Your task to perform on an android device: move an email to a new category in the gmail app Image 0: 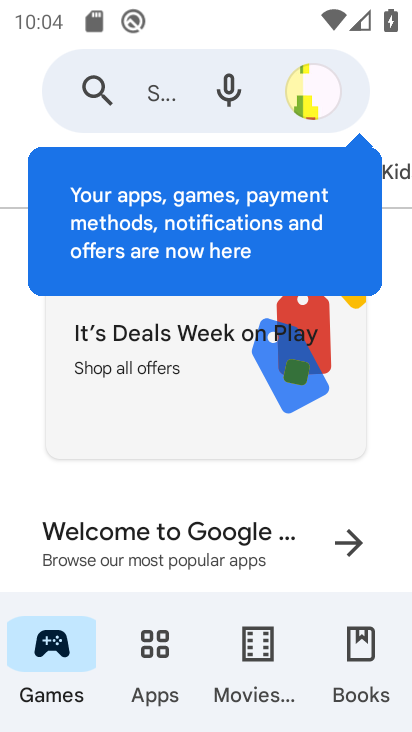
Step 0: press home button
Your task to perform on an android device: move an email to a new category in the gmail app Image 1: 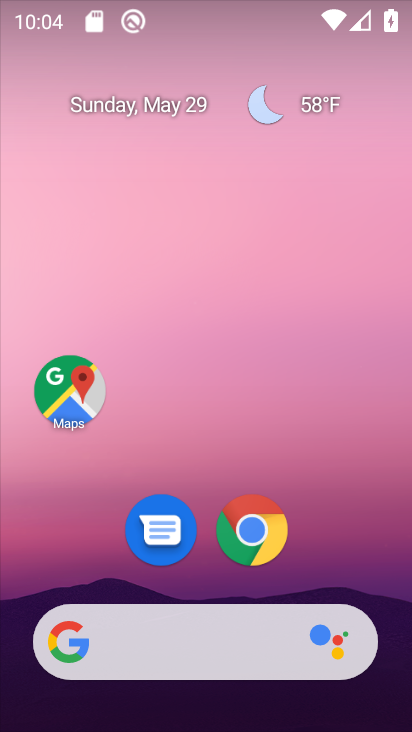
Step 1: drag from (171, 603) to (21, 294)
Your task to perform on an android device: move an email to a new category in the gmail app Image 2: 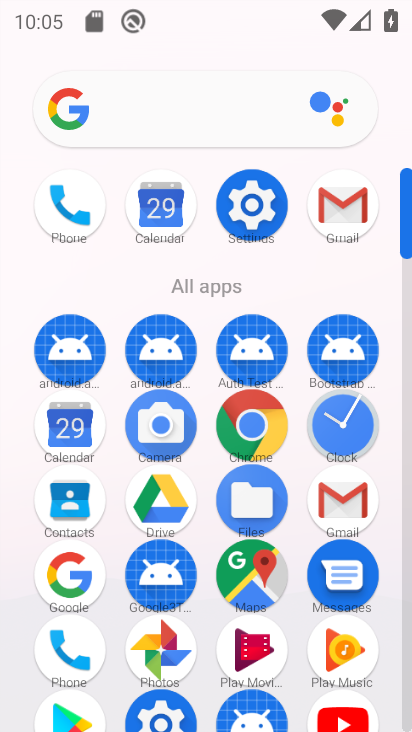
Step 2: click (343, 499)
Your task to perform on an android device: move an email to a new category in the gmail app Image 3: 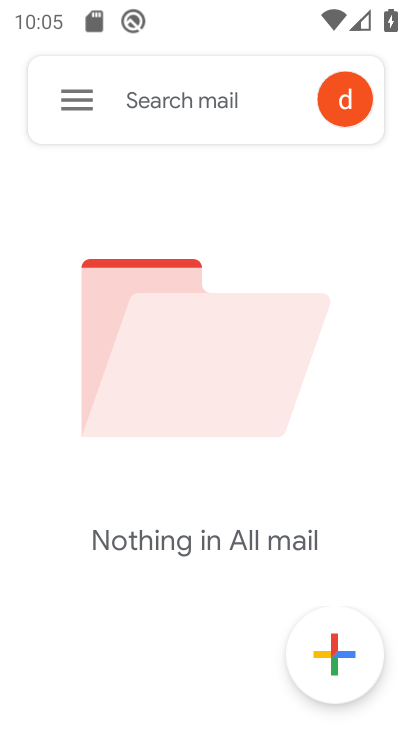
Step 3: task complete